Your task to perform on an android device: open the mobile data screen to see how much data has been used Image 0: 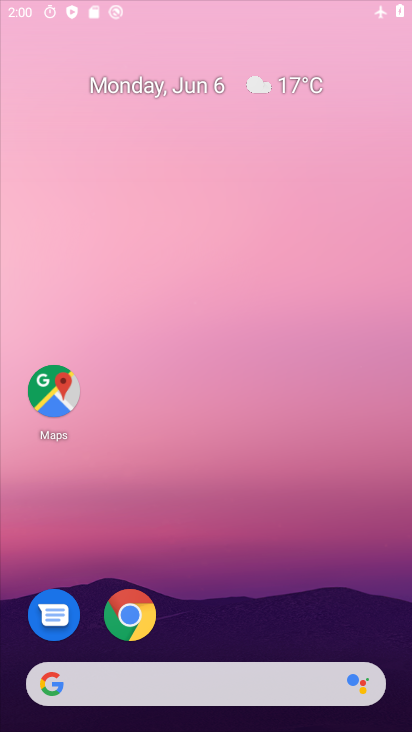
Step 0: click (275, 72)
Your task to perform on an android device: open the mobile data screen to see how much data has been used Image 1: 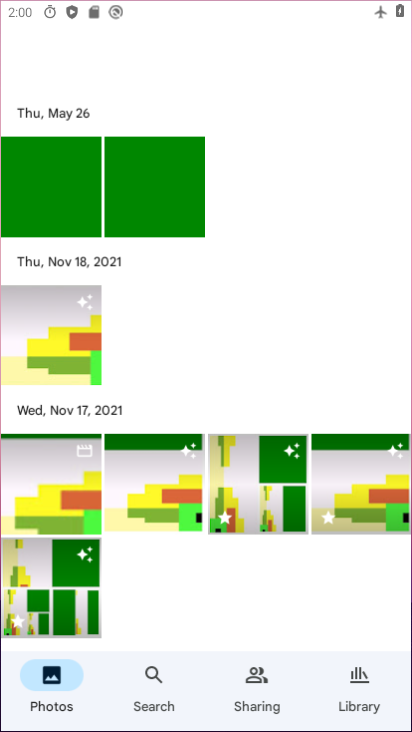
Step 1: drag from (148, 548) to (250, 152)
Your task to perform on an android device: open the mobile data screen to see how much data has been used Image 2: 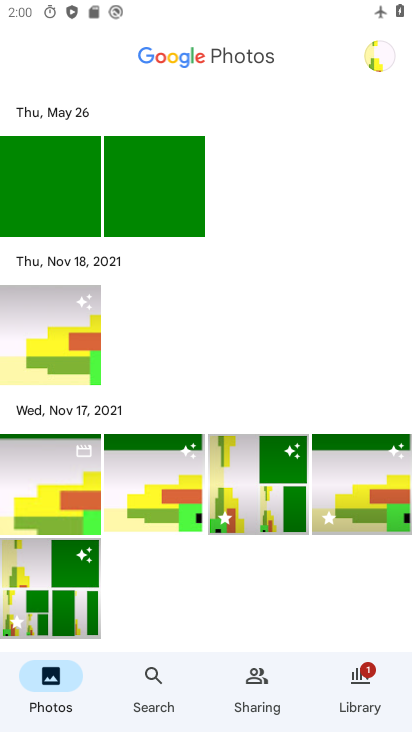
Step 2: press home button
Your task to perform on an android device: open the mobile data screen to see how much data has been used Image 3: 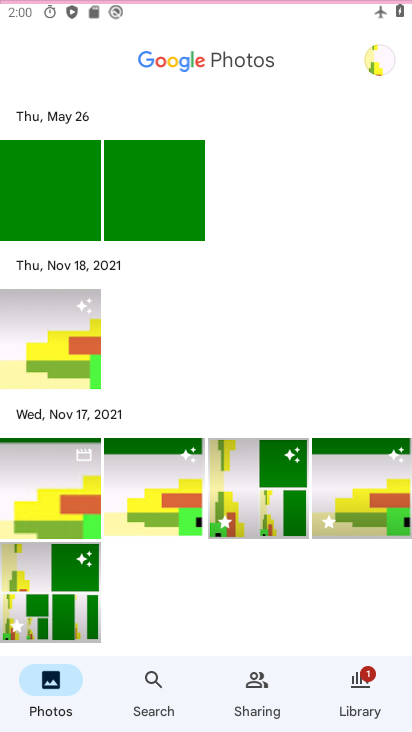
Step 3: drag from (162, 568) to (216, 117)
Your task to perform on an android device: open the mobile data screen to see how much data has been used Image 4: 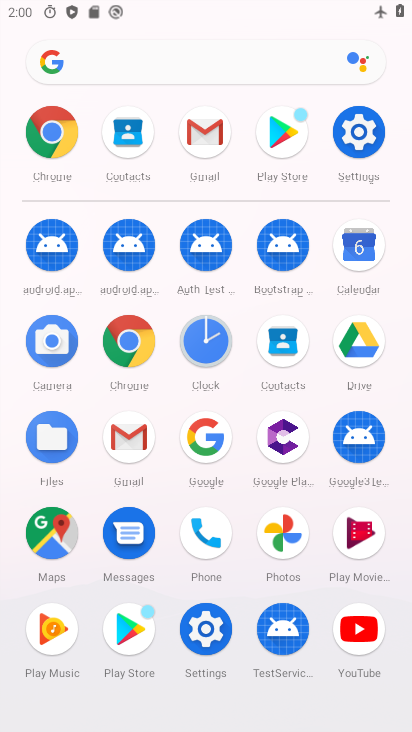
Step 4: click (354, 131)
Your task to perform on an android device: open the mobile data screen to see how much data has been used Image 5: 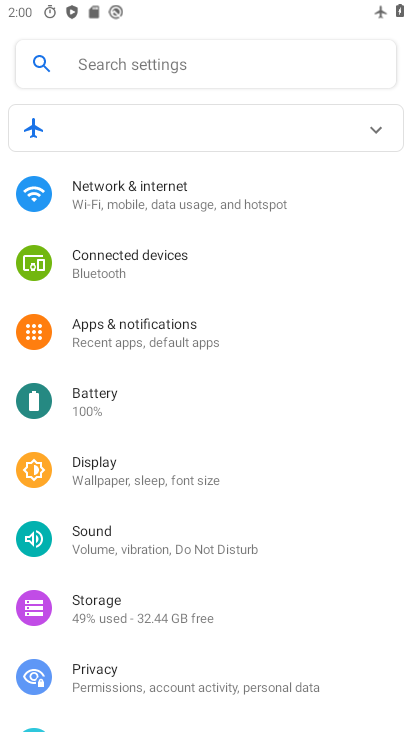
Step 5: click (194, 202)
Your task to perform on an android device: open the mobile data screen to see how much data has been used Image 6: 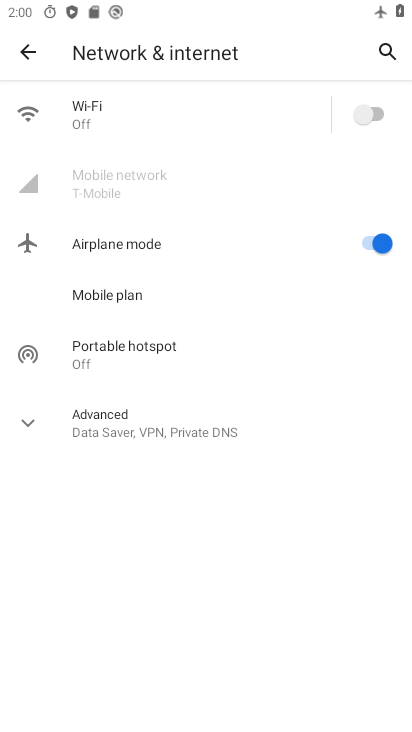
Step 6: click (193, 188)
Your task to perform on an android device: open the mobile data screen to see how much data has been used Image 7: 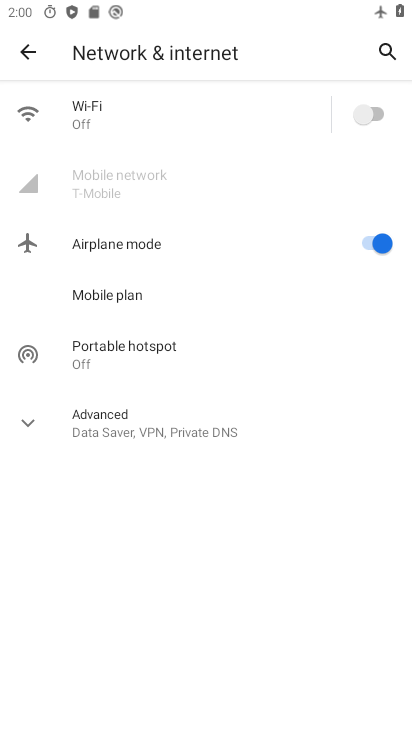
Step 7: task complete